Your task to perform on an android device: turn off priority inbox in the gmail app Image 0: 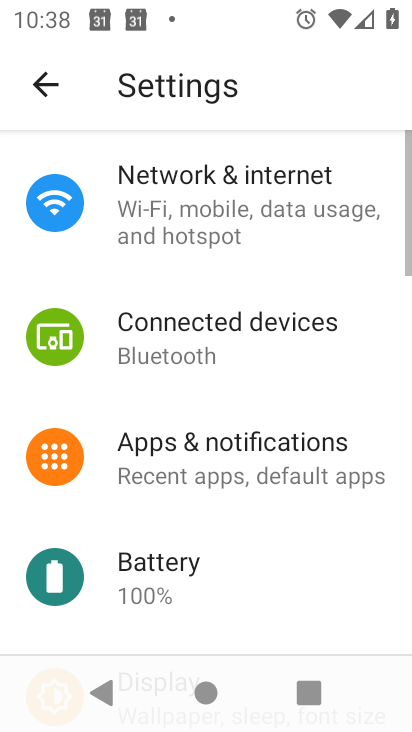
Step 0: press home button
Your task to perform on an android device: turn off priority inbox in the gmail app Image 1: 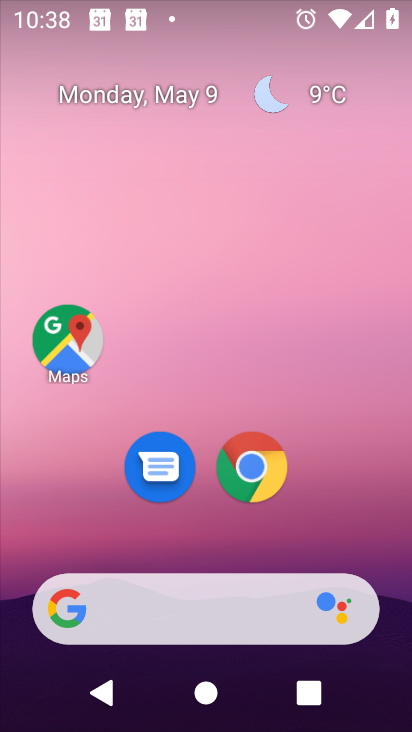
Step 1: drag from (391, 573) to (388, 20)
Your task to perform on an android device: turn off priority inbox in the gmail app Image 2: 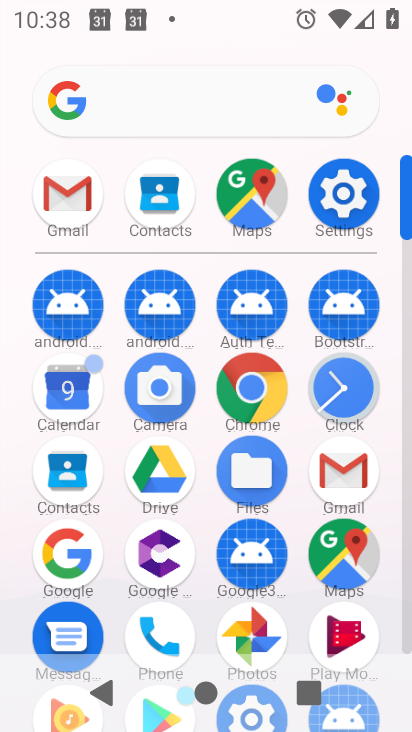
Step 2: click (79, 193)
Your task to perform on an android device: turn off priority inbox in the gmail app Image 3: 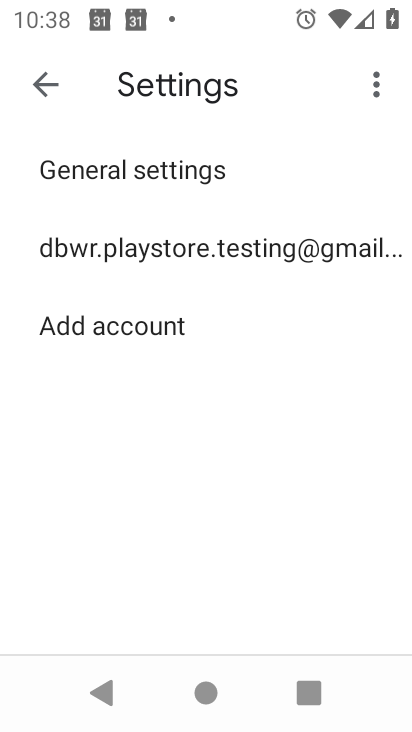
Step 3: click (127, 257)
Your task to perform on an android device: turn off priority inbox in the gmail app Image 4: 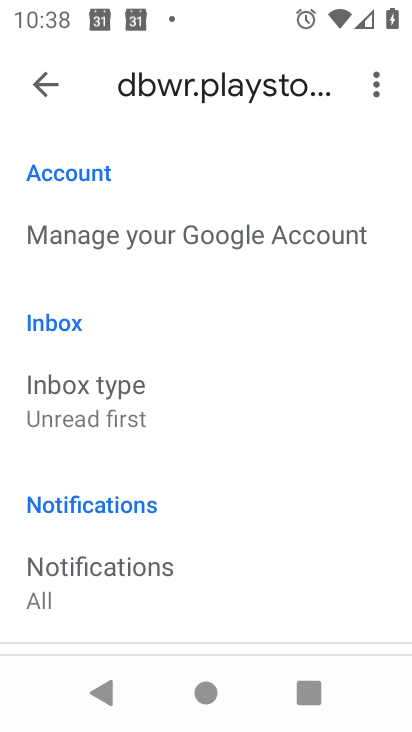
Step 4: click (128, 407)
Your task to perform on an android device: turn off priority inbox in the gmail app Image 5: 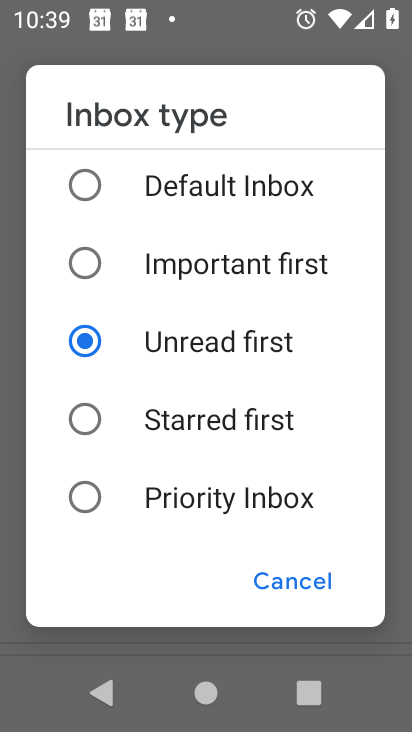
Step 5: task complete